Your task to perform on an android device: Go to location settings Image 0: 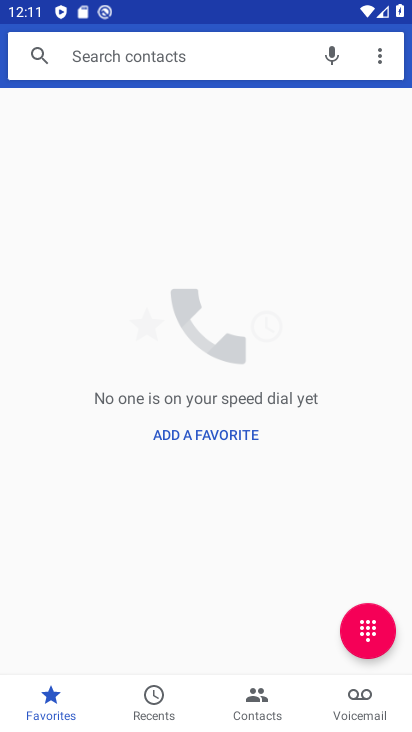
Step 0: press home button
Your task to perform on an android device: Go to location settings Image 1: 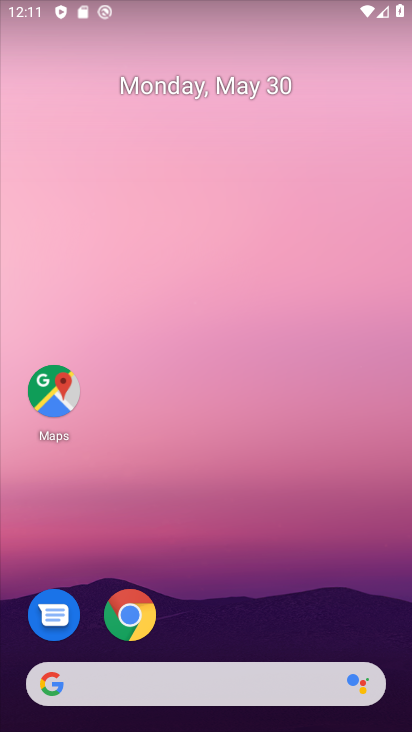
Step 1: drag from (205, 582) to (266, 103)
Your task to perform on an android device: Go to location settings Image 2: 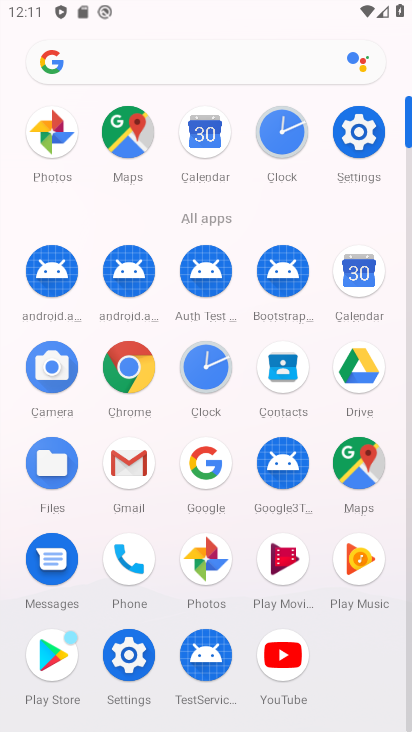
Step 2: click (365, 133)
Your task to perform on an android device: Go to location settings Image 3: 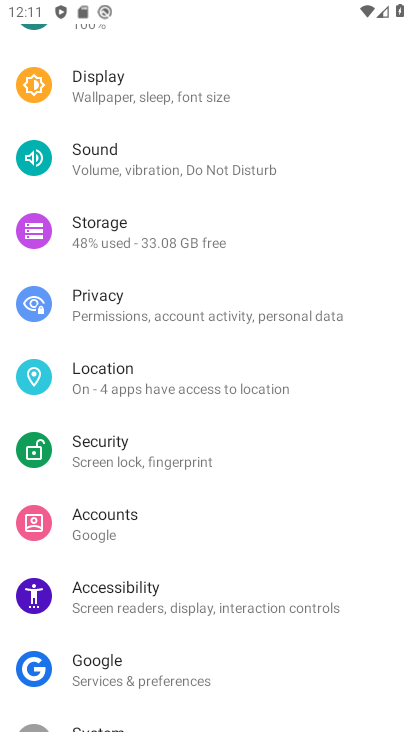
Step 3: click (123, 376)
Your task to perform on an android device: Go to location settings Image 4: 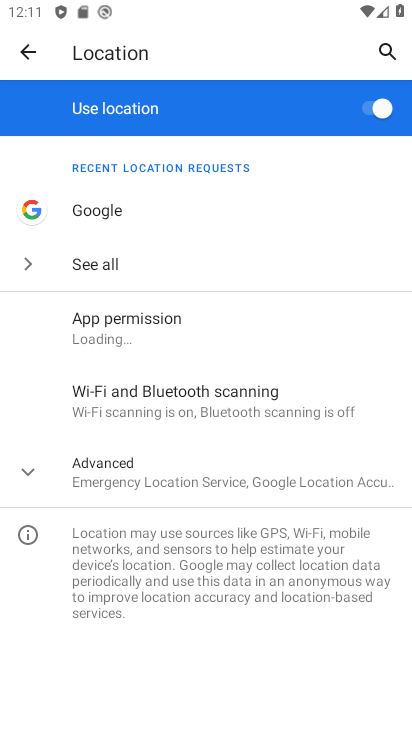
Step 4: click (117, 475)
Your task to perform on an android device: Go to location settings Image 5: 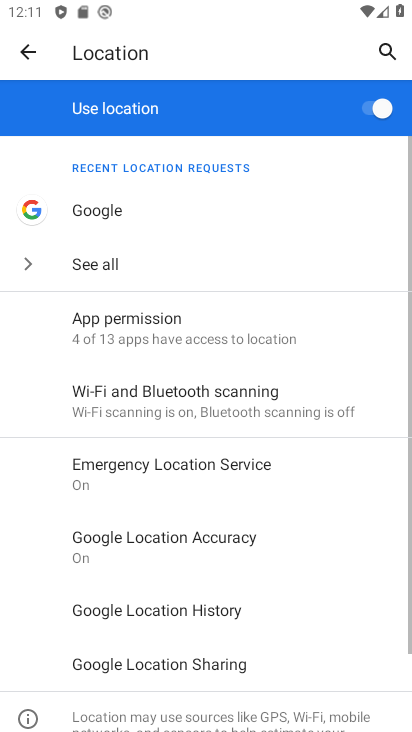
Step 5: task complete